Your task to perform on an android device: Open Google Maps and go to "Timeline" Image 0: 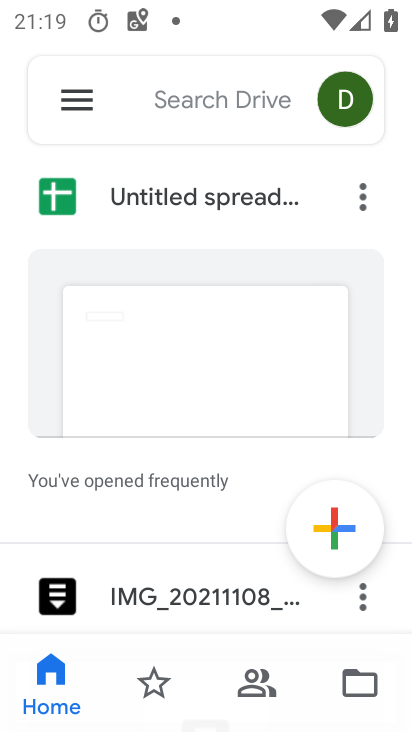
Step 0: press home button
Your task to perform on an android device: Open Google Maps and go to "Timeline" Image 1: 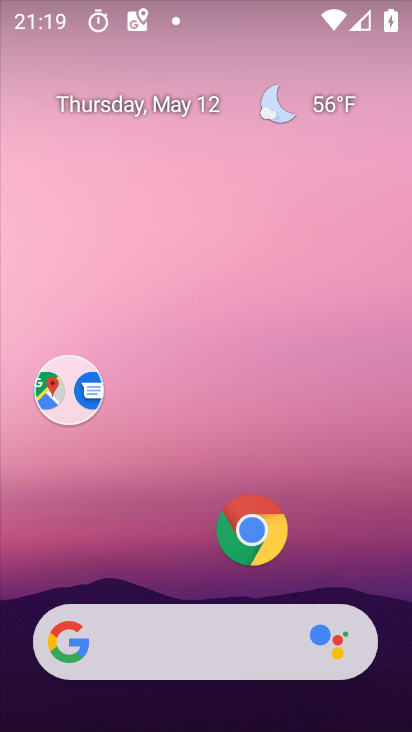
Step 1: drag from (130, 494) to (118, 100)
Your task to perform on an android device: Open Google Maps and go to "Timeline" Image 2: 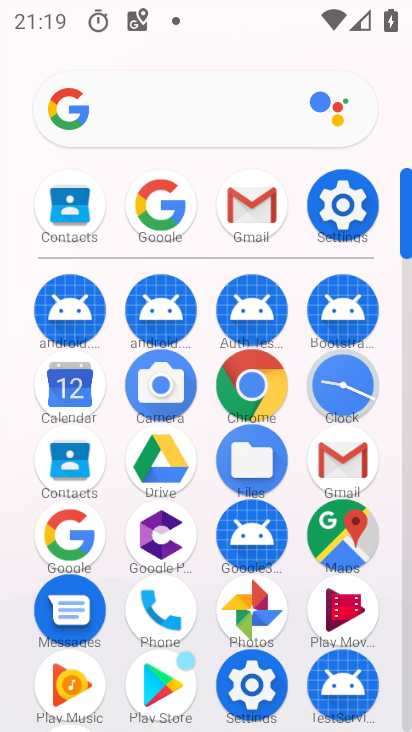
Step 2: click (349, 536)
Your task to perform on an android device: Open Google Maps and go to "Timeline" Image 3: 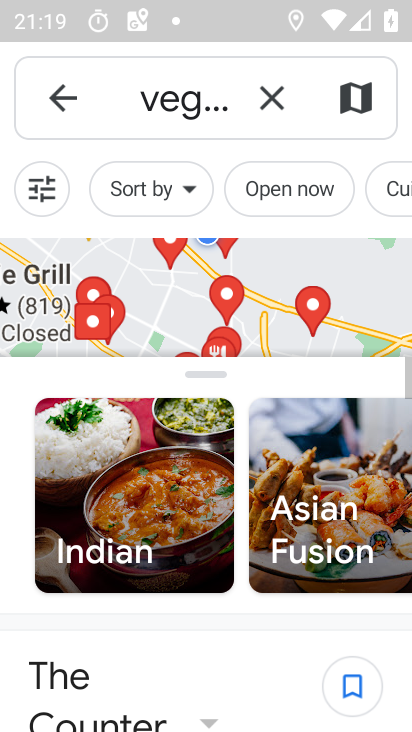
Step 3: click (270, 87)
Your task to perform on an android device: Open Google Maps and go to "Timeline" Image 4: 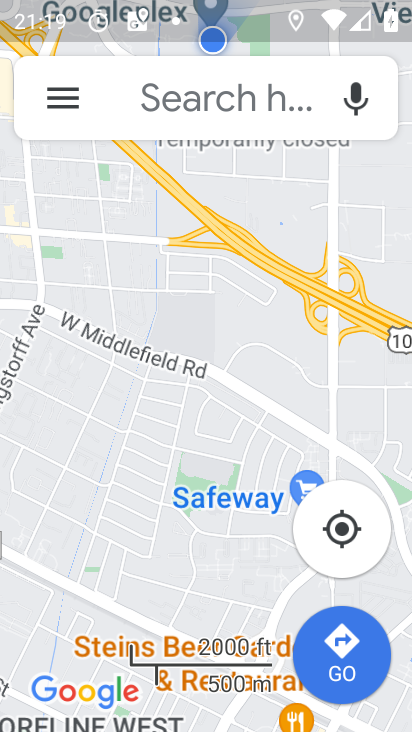
Step 4: click (79, 100)
Your task to perform on an android device: Open Google Maps and go to "Timeline" Image 5: 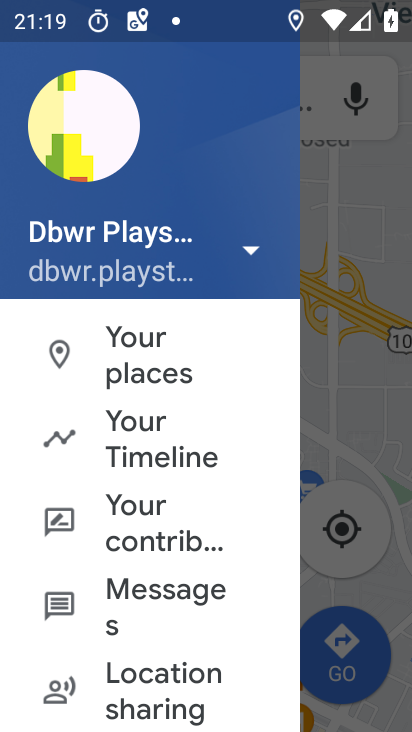
Step 5: click (153, 435)
Your task to perform on an android device: Open Google Maps and go to "Timeline" Image 6: 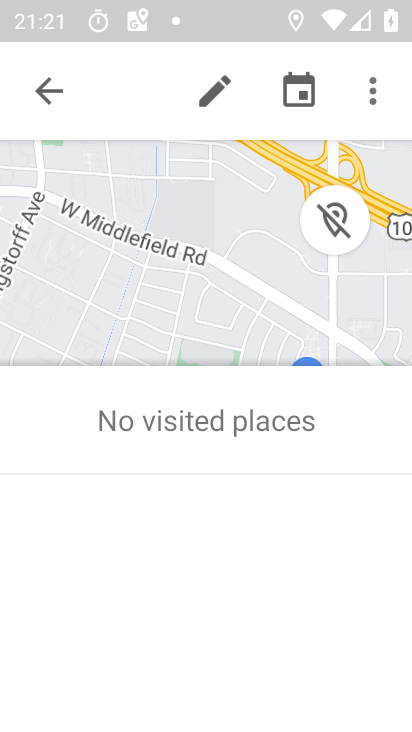
Step 6: task complete